Your task to perform on an android device: turn off picture-in-picture Image 0: 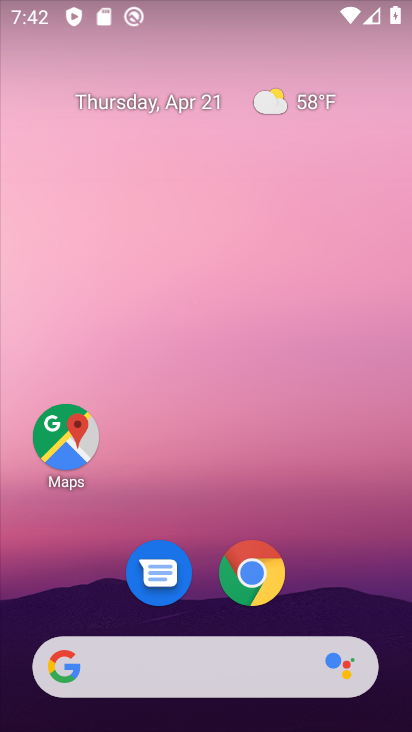
Step 0: drag from (193, 506) to (213, 330)
Your task to perform on an android device: turn off picture-in-picture Image 1: 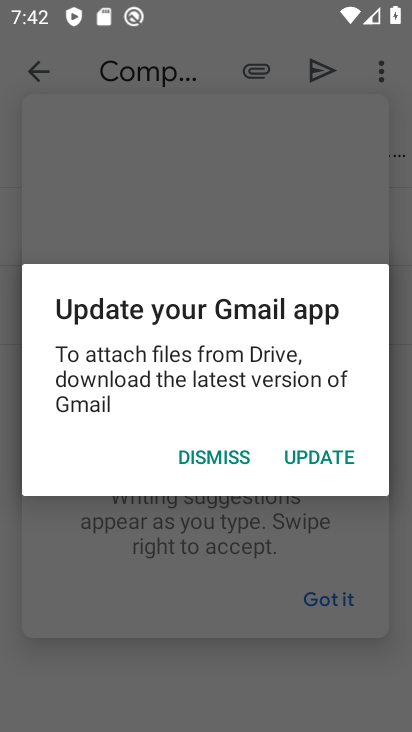
Step 1: press home button
Your task to perform on an android device: turn off picture-in-picture Image 2: 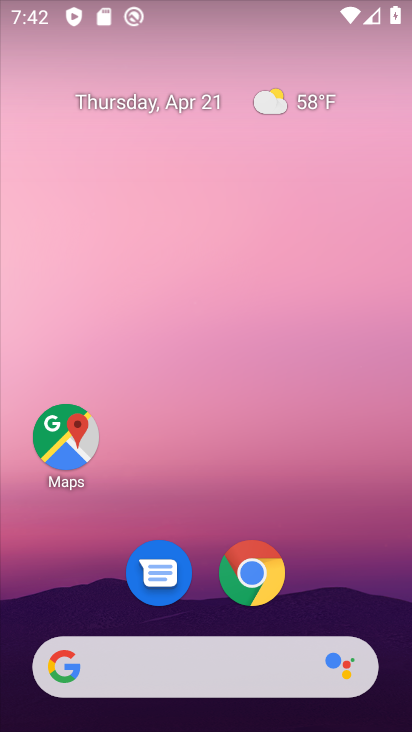
Step 2: click (258, 569)
Your task to perform on an android device: turn off picture-in-picture Image 3: 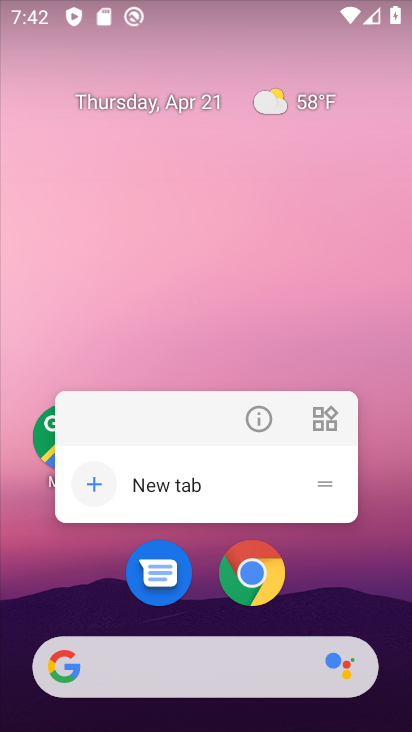
Step 3: click (261, 409)
Your task to perform on an android device: turn off picture-in-picture Image 4: 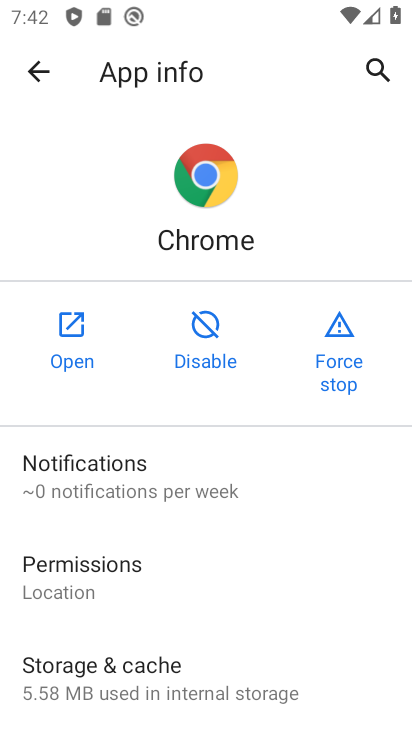
Step 4: drag from (232, 632) to (256, 185)
Your task to perform on an android device: turn off picture-in-picture Image 5: 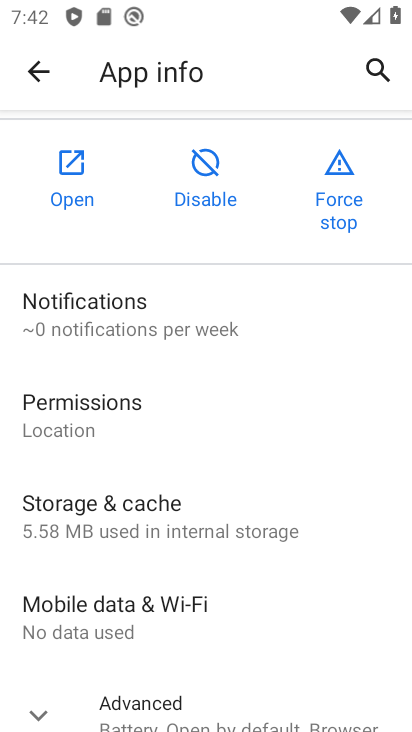
Step 5: drag from (219, 659) to (259, 296)
Your task to perform on an android device: turn off picture-in-picture Image 6: 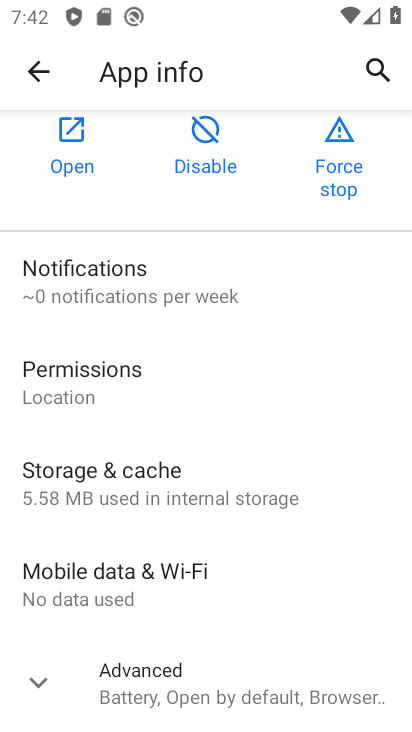
Step 6: click (220, 696)
Your task to perform on an android device: turn off picture-in-picture Image 7: 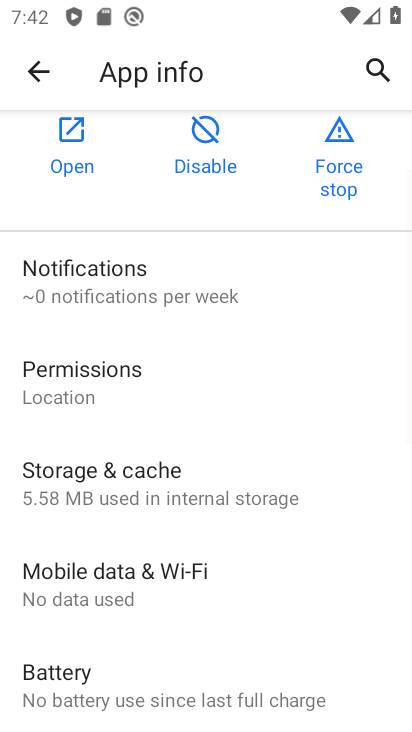
Step 7: drag from (246, 711) to (269, 387)
Your task to perform on an android device: turn off picture-in-picture Image 8: 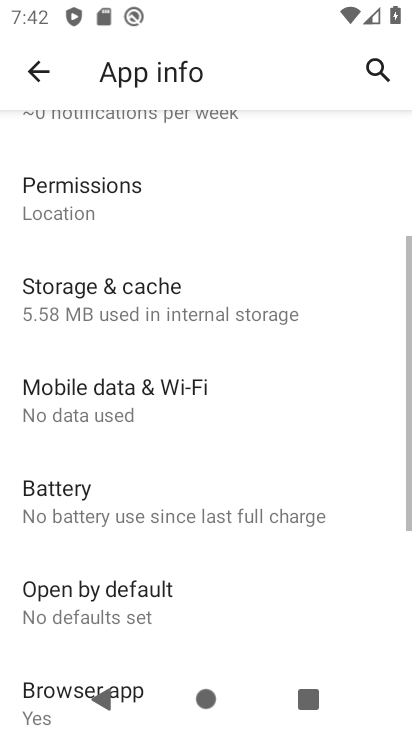
Step 8: drag from (249, 607) to (287, 317)
Your task to perform on an android device: turn off picture-in-picture Image 9: 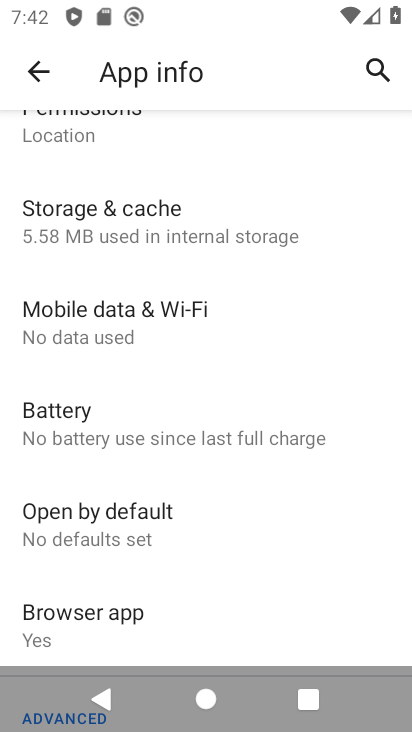
Step 9: drag from (204, 438) to (252, 164)
Your task to perform on an android device: turn off picture-in-picture Image 10: 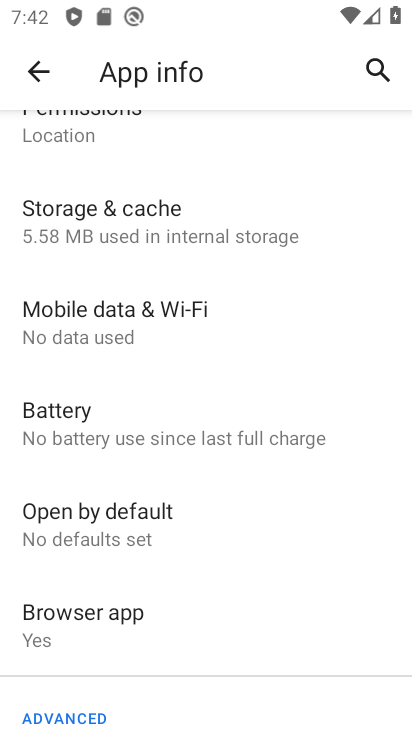
Step 10: click (75, 723)
Your task to perform on an android device: turn off picture-in-picture Image 11: 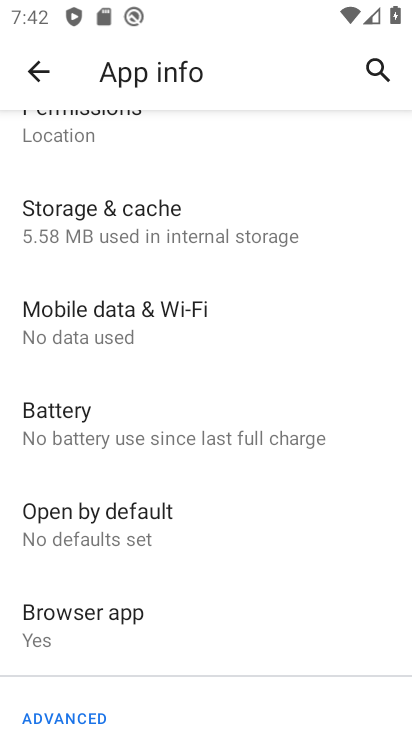
Step 11: click (73, 719)
Your task to perform on an android device: turn off picture-in-picture Image 12: 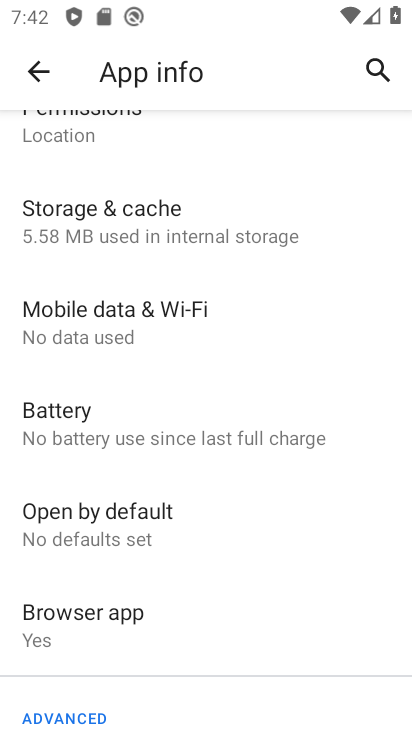
Step 12: drag from (208, 579) to (247, 289)
Your task to perform on an android device: turn off picture-in-picture Image 13: 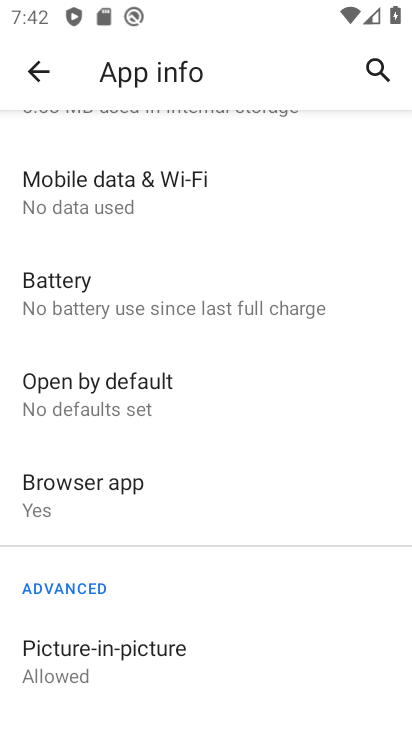
Step 13: click (38, 663)
Your task to perform on an android device: turn off picture-in-picture Image 14: 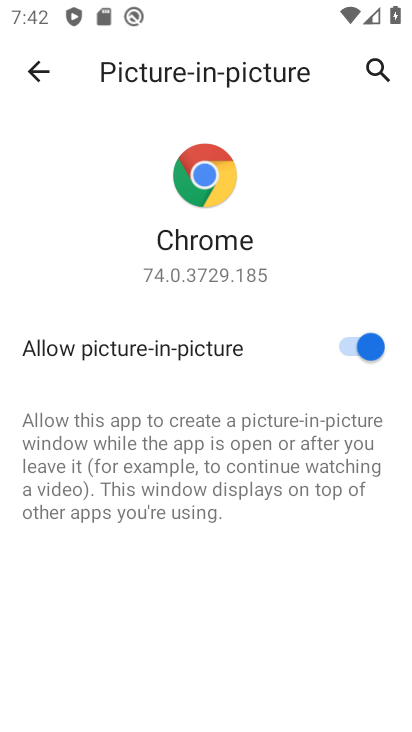
Step 14: click (348, 346)
Your task to perform on an android device: turn off picture-in-picture Image 15: 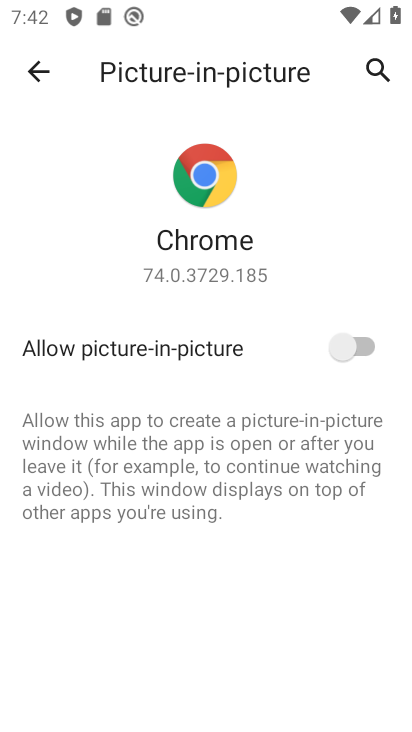
Step 15: task complete